Your task to perform on an android device: turn off notifications in google photos Image 0: 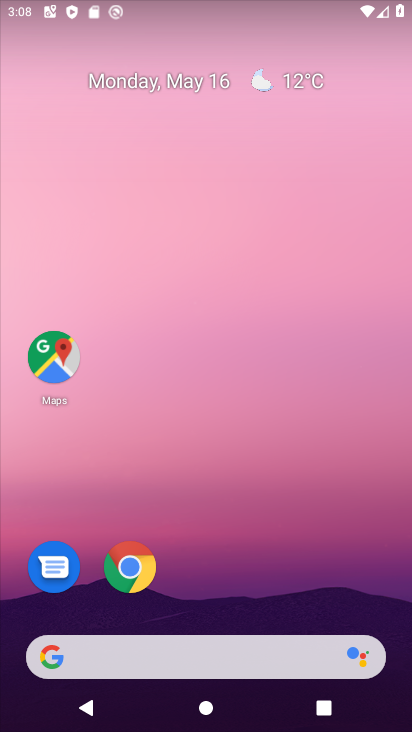
Step 0: drag from (294, 554) to (334, 89)
Your task to perform on an android device: turn off notifications in google photos Image 1: 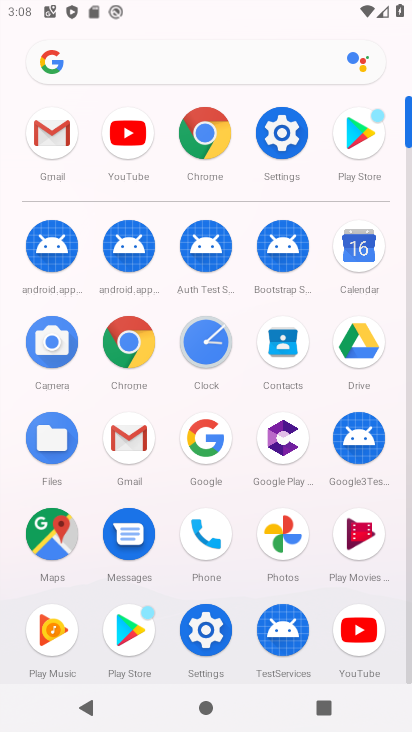
Step 1: click (286, 127)
Your task to perform on an android device: turn off notifications in google photos Image 2: 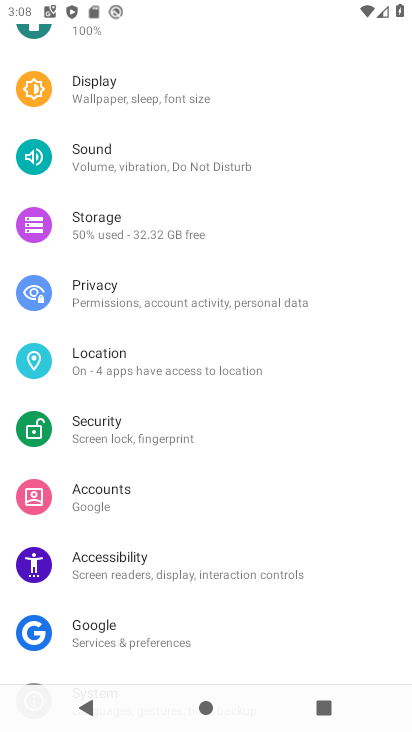
Step 2: press home button
Your task to perform on an android device: turn off notifications in google photos Image 3: 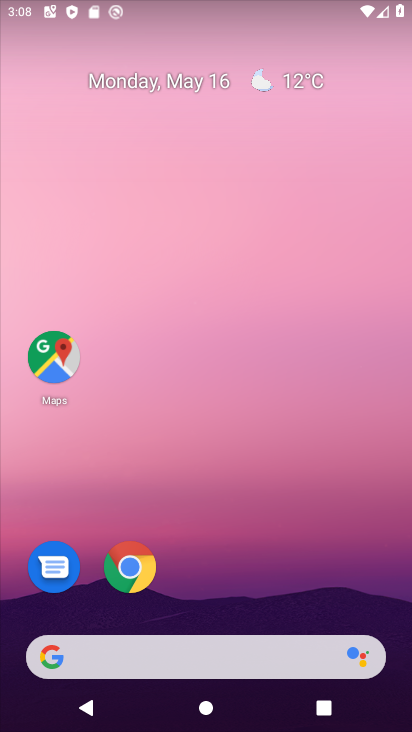
Step 3: drag from (294, 451) to (308, 67)
Your task to perform on an android device: turn off notifications in google photos Image 4: 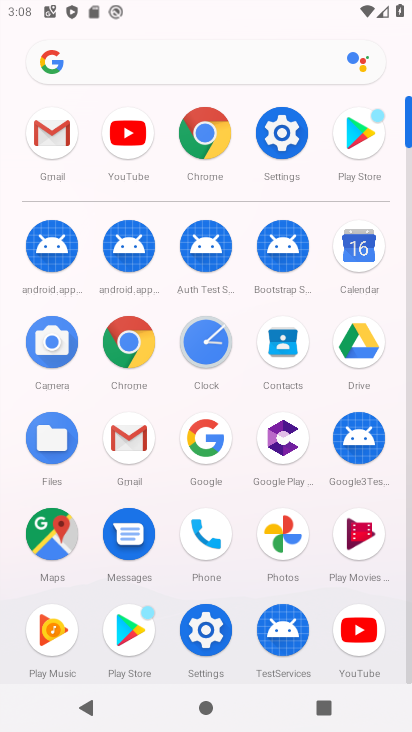
Step 4: click (282, 533)
Your task to perform on an android device: turn off notifications in google photos Image 5: 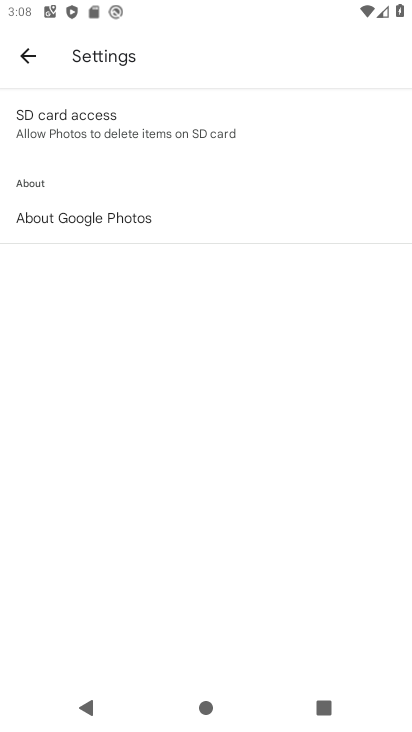
Step 5: click (41, 55)
Your task to perform on an android device: turn off notifications in google photos Image 6: 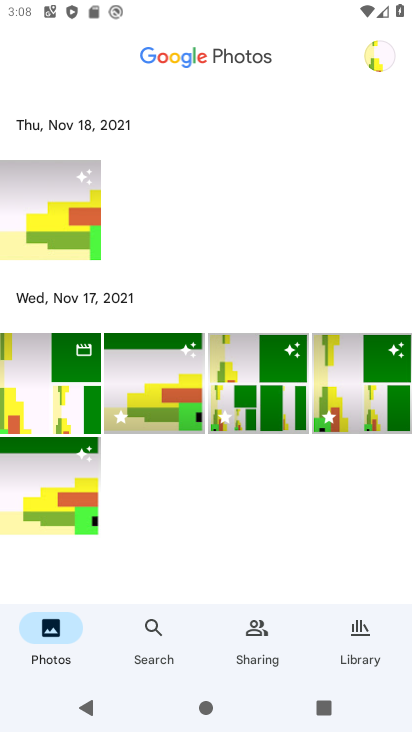
Step 6: click (385, 51)
Your task to perform on an android device: turn off notifications in google photos Image 7: 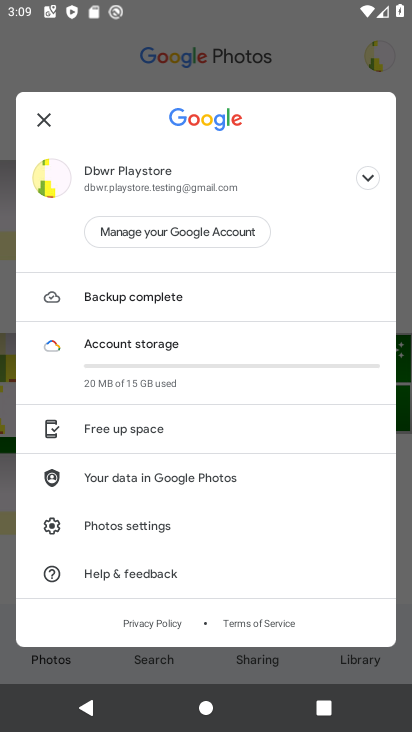
Step 7: drag from (169, 503) to (252, 153)
Your task to perform on an android device: turn off notifications in google photos Image 8: 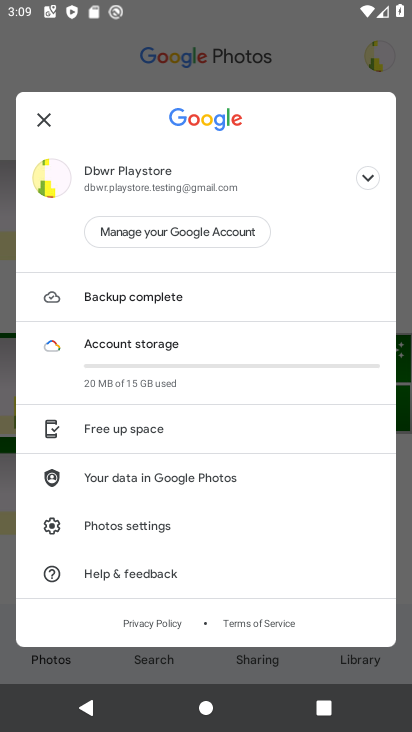
Step 8: click (132, 529)
Your task to perform on an android device: turn off notifications in google photos Image 9: 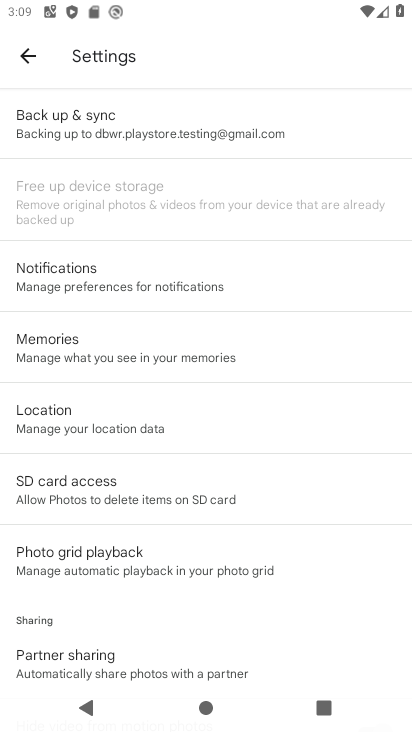
Step 9: click (138, 278)
Your task to perform on an android device: turn off notifications in google photos Image 10: 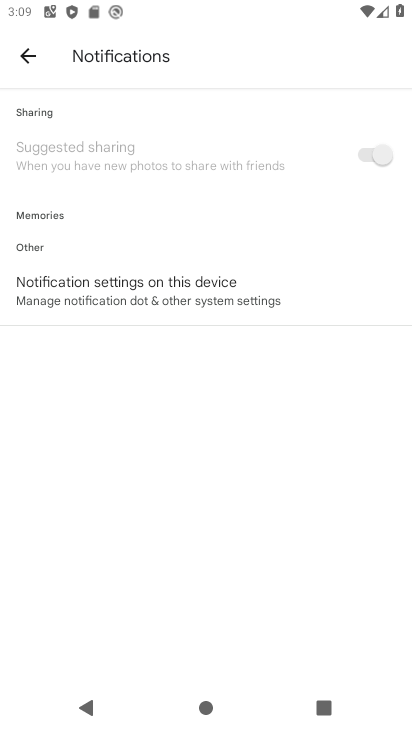
Step 10: click (137, 281)
Your task to perform on an android device: turn off notifications in google photos Image 11: 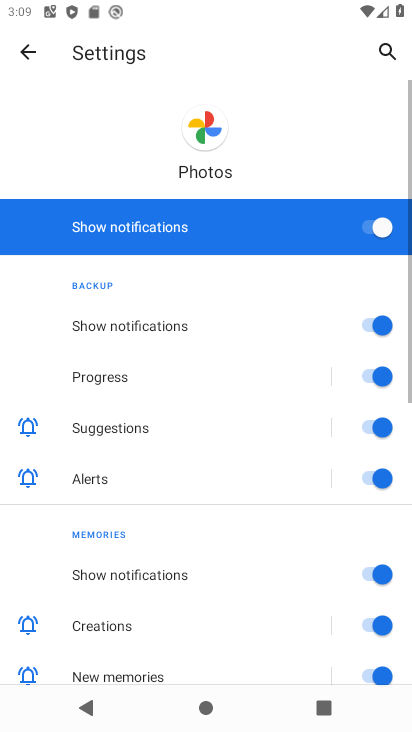
Step 11: click (380, 224)
Your task to perform on an android device: turn off notifications in google photos Image 12: 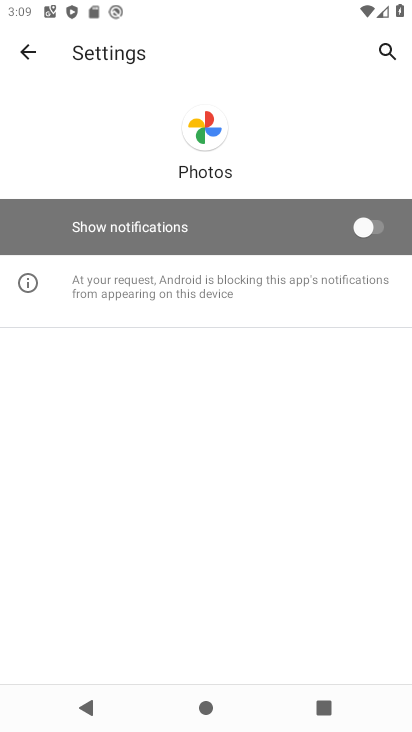
Step 12: task complete